Your task to perform on an android device: Go to display settings Image 0: 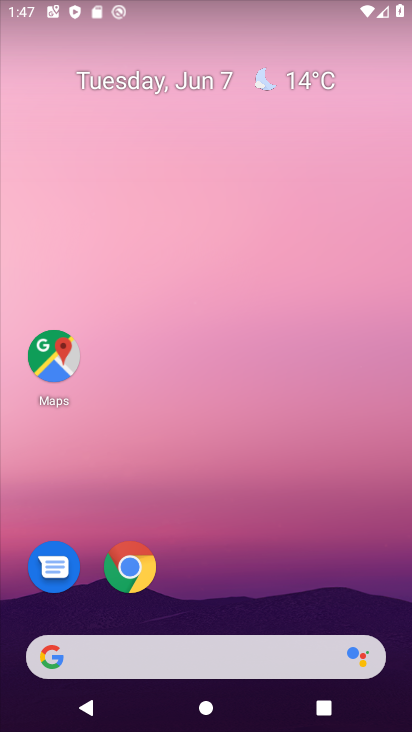
Step 0: drag from (316, 377) to (300, 29)
Your task to perform on an android device: Go to display settings Image 1: 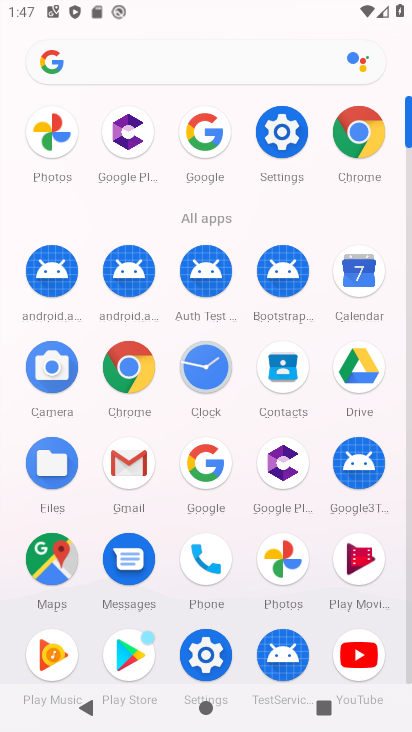
Step 1: click (288, 135)
Your task to perform on an android device: Go to display settings Image 2: 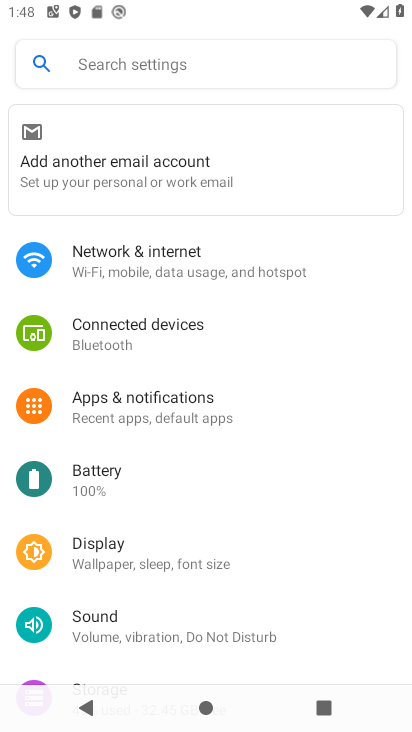
Step 2: click (137, 550)
Your task to perform on an android device: Go to display settings Image 3: 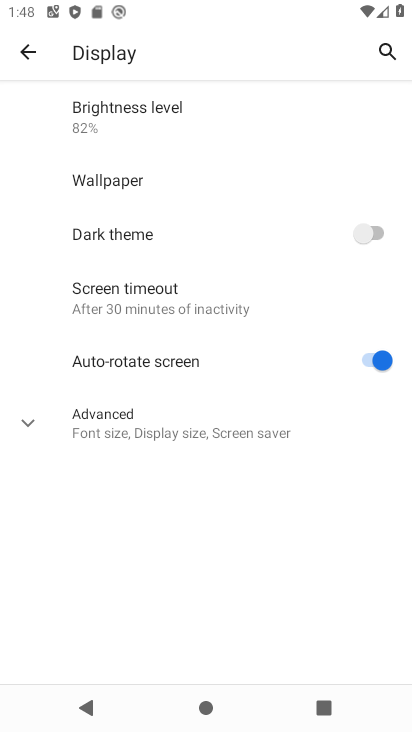
Step 3: task complete